Your task to perform on an android device: What's on my calendar tomorrow? Image 0: 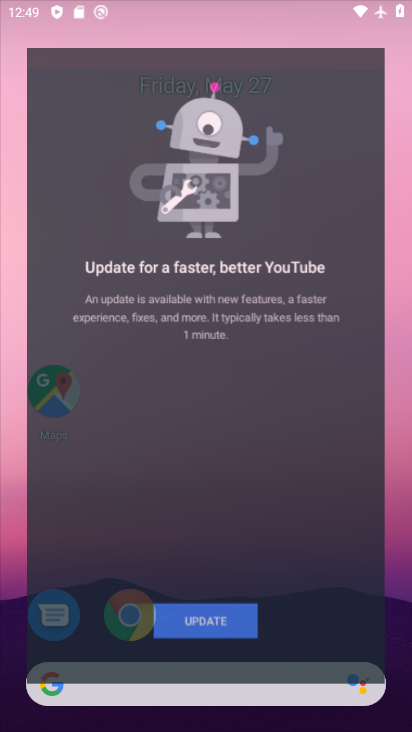
Step 0: press home button
Your task to perform on an android device: What's on my calendar tomorrow? Image 1: 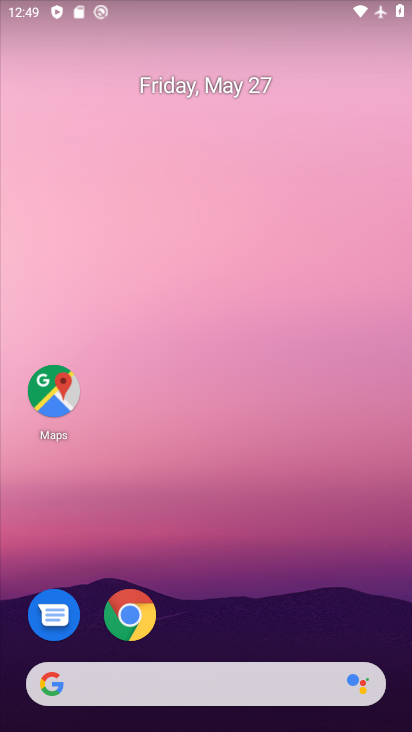
Step 1: drag from (273, 629) to (239, 120)
Your task to perform on an android device: What's on my calendar tomorrow? Image 2: 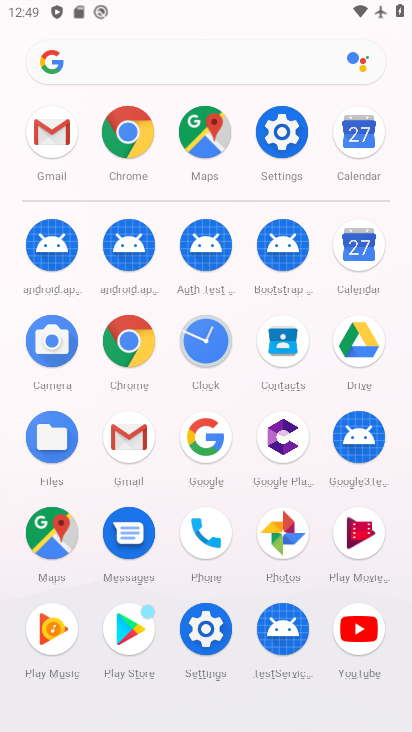
Step 2: click (361, 254)
Your task to perform on an android device: What's on my calendar tomorrow? Image 3: 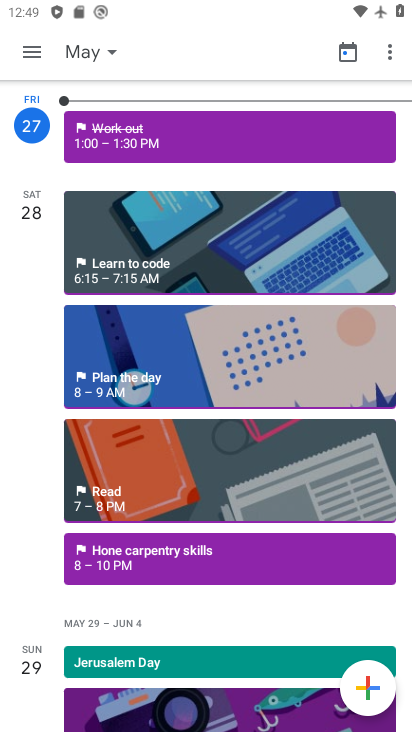
Step 3: task complete